Your task to perform on an android device: turn off sleep mode Image 0: 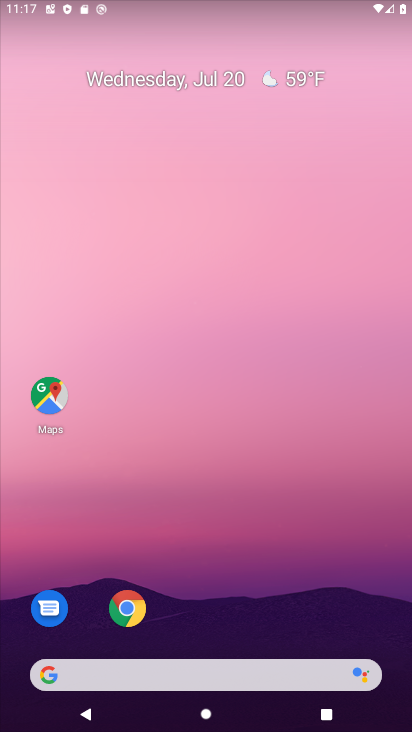
Step 0: drag from (356, 576) to (359, 124)
Your task to perform on an android device: turn off sleep mode Image 1: 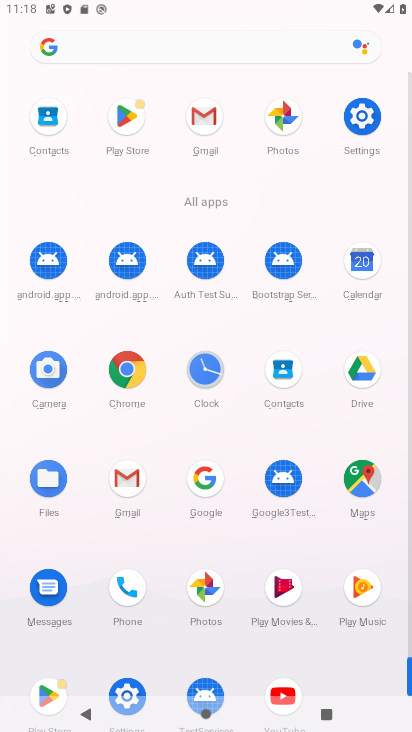
Step 1: click (367, 108)
Your task to perform on an android device: turn off sleep mode Image 2: 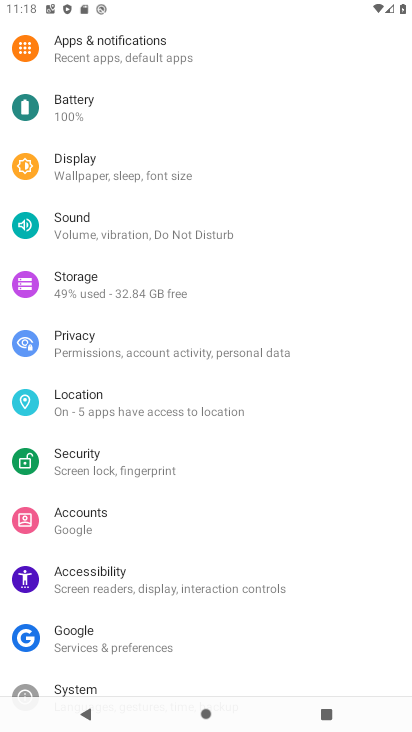
Step 2: drag from (340, 205) to (340, 304)
Your task to perform on an android device: turn off sleep mode Image 3: 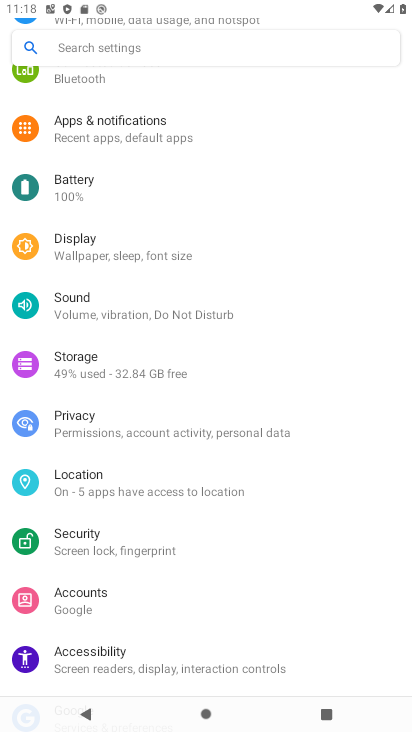
Step 3: drag from (347, 183) to (344, 308)
Your task to perform on an android device: turn off sleep mode Image 4: 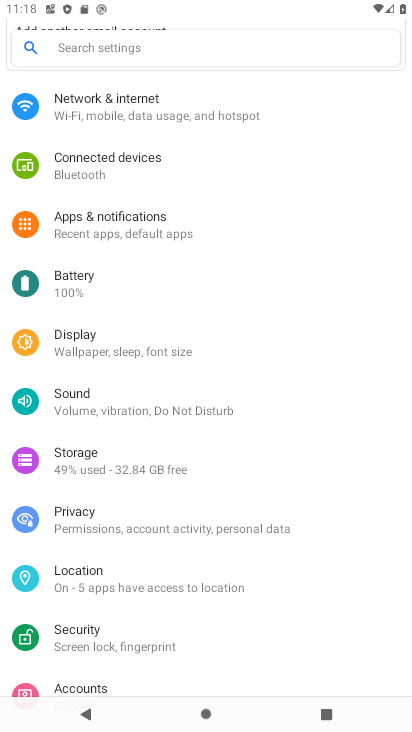
Step 4: drag from (353, 174) to (346, 404)
Your task to perform on an android device: turn off sleep mode Image 5: 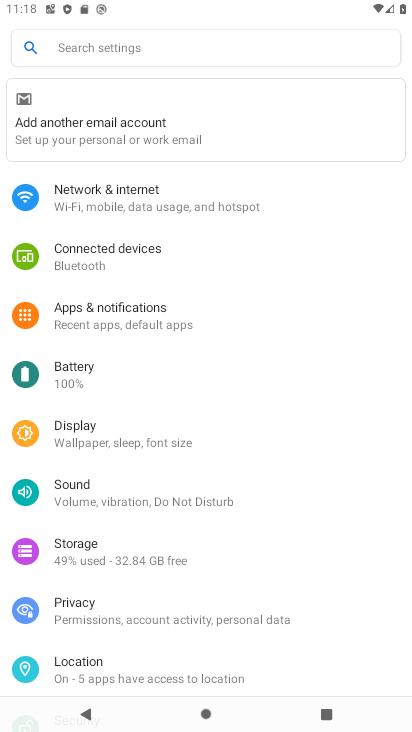
Step 5: drag from (340, 456) to (345, 360)
Your task to perform on an android device: turn off sleep mode Image 6: 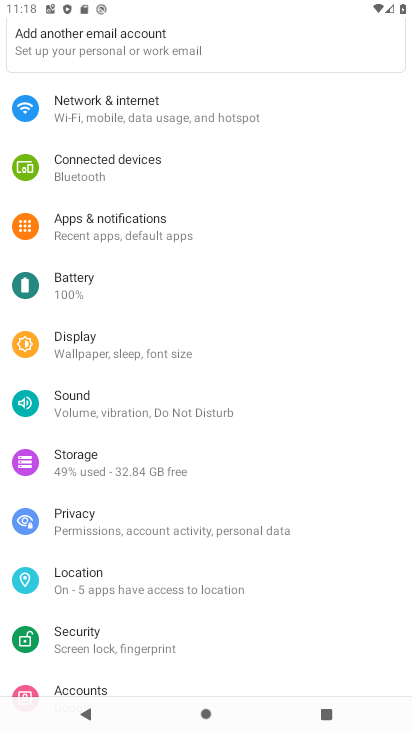
Step 6: drag from (331, 460) to (337, 345)
Your task to perform on an android device: turn off sleep mode Image 7: 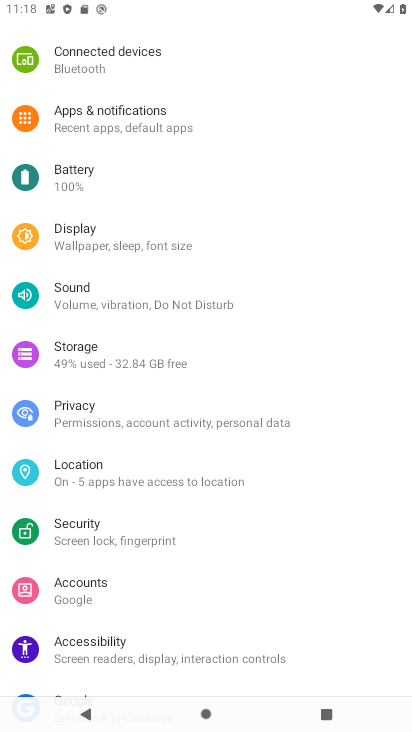
Step 7: click (260, 251)
Your task to perform on an android device: turn off sleep mode Image 8: 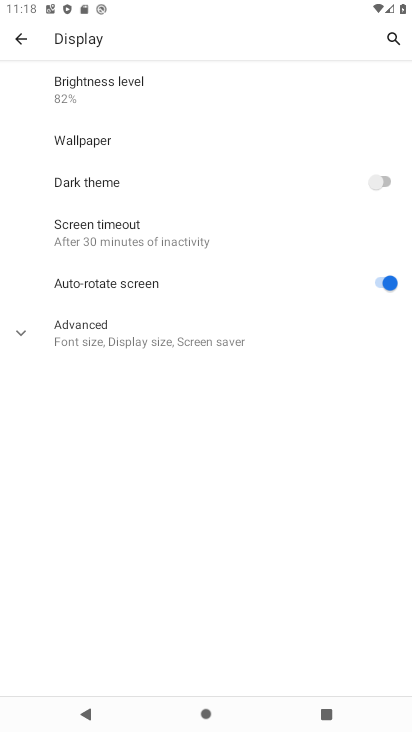
Step 8: click (261, 341)
Your task to perform on an android device: turn off sleep mode Image 9: 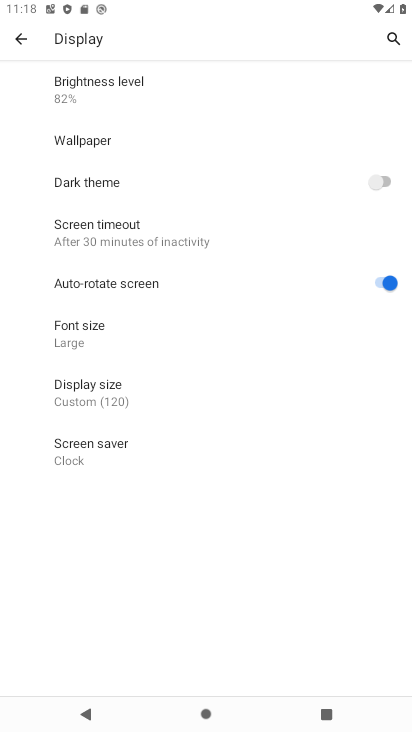
Step 9: task complete